Your task to perform on an android device: turn off improve location accuracy Image 0: 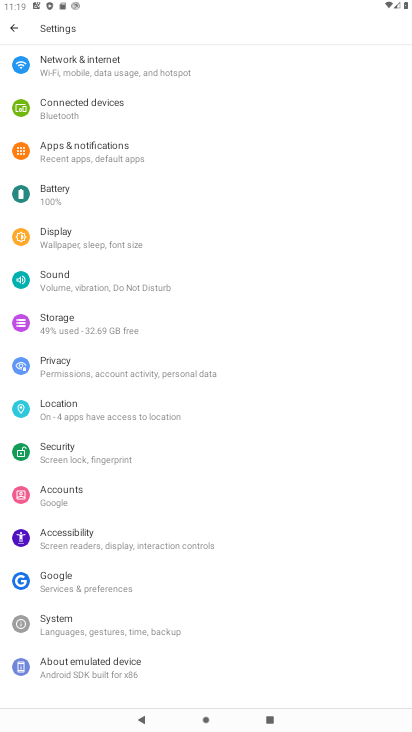
Step 0: press home button
Your task to perform on an android device: turn off improve location accuracy Image 1: 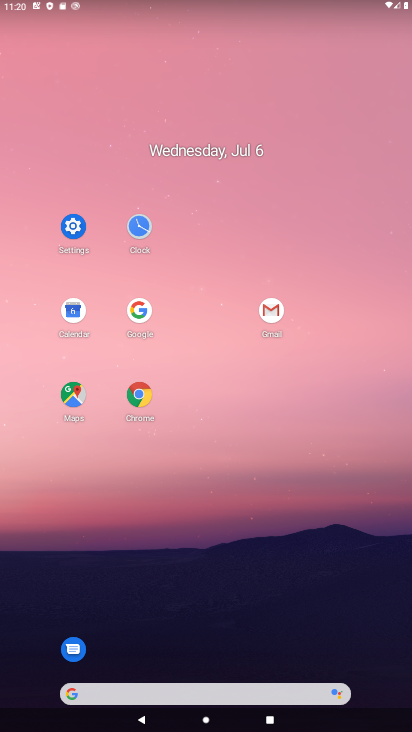
Step 1: click (76, 229)
Your task to perform on an android device: turn off improve location accuracy Image 2: 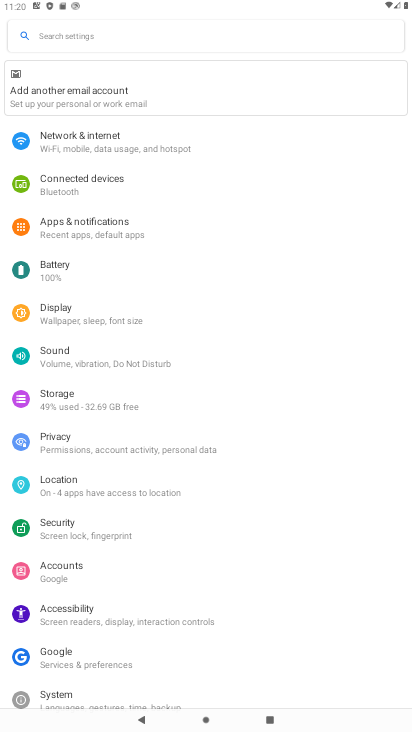
Step 2: click (97, 488)
Your task to perform on an android device: turn off improve location accuracy Image 3: 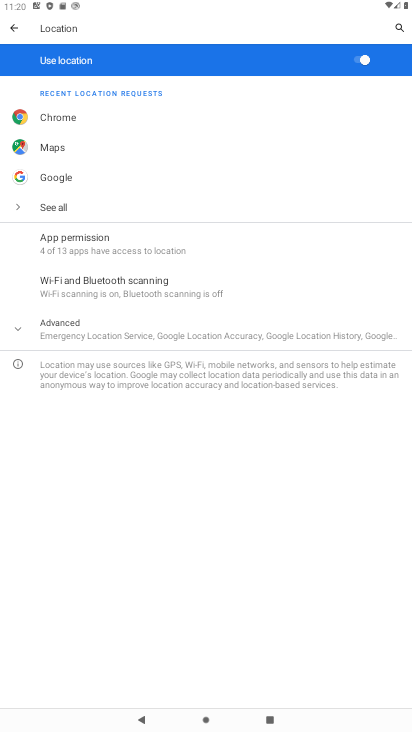
Step 3: click (163, 329)
Your task to perform on an android device: turn off improve location accuracy Image 4: 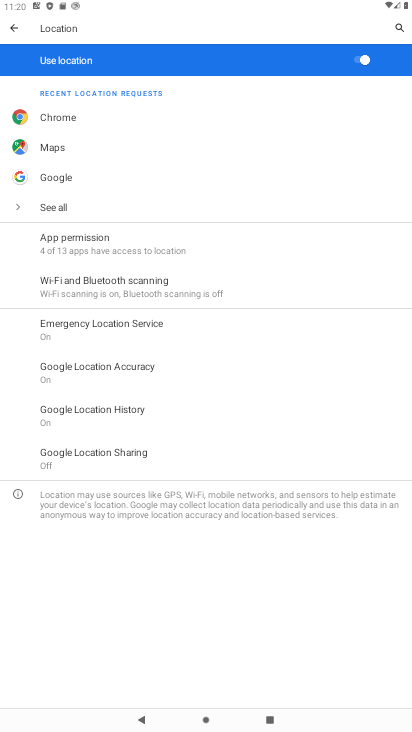
Step 4: click (139, 368)
Your task to perform on an android device: turn off improve location accuracy Image 5: 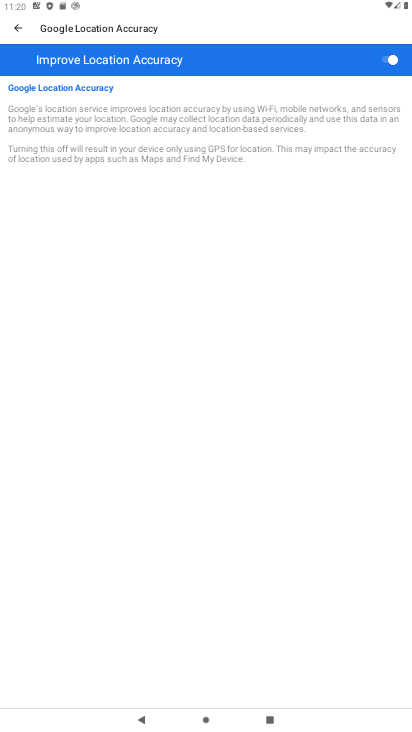
Step 5: click (382, 56)
Your task to perform on an android device: turn off improve location accuracy Image 6: 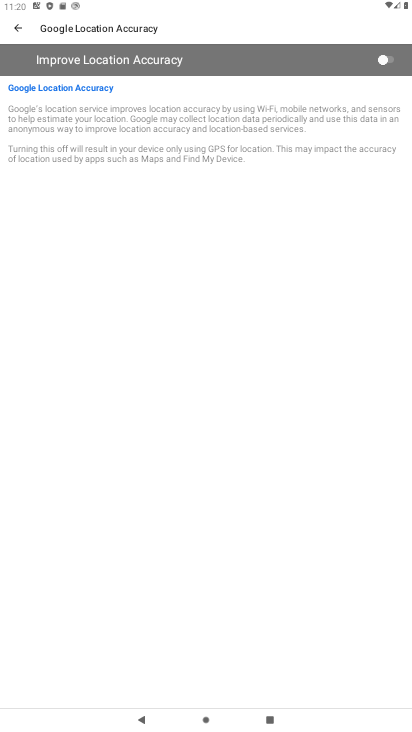
Step 6: task complete